Your task to perform on an android device: find photos in the google photos app Image 0: 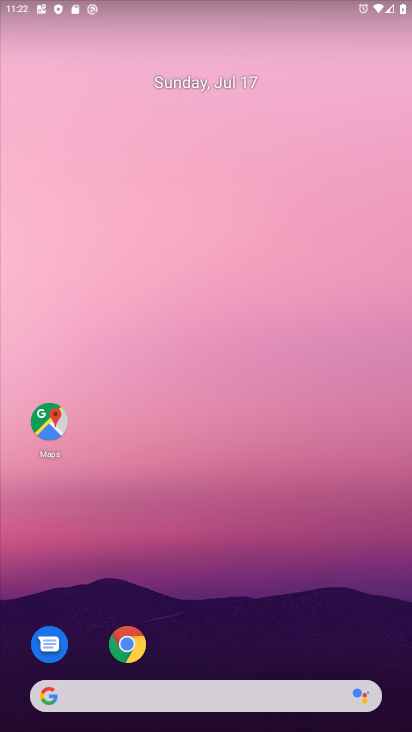
Step 0: drag from (322, 589) to (295, 115)
Your task to perform on an android device: find photos in the google photos app Image 1: 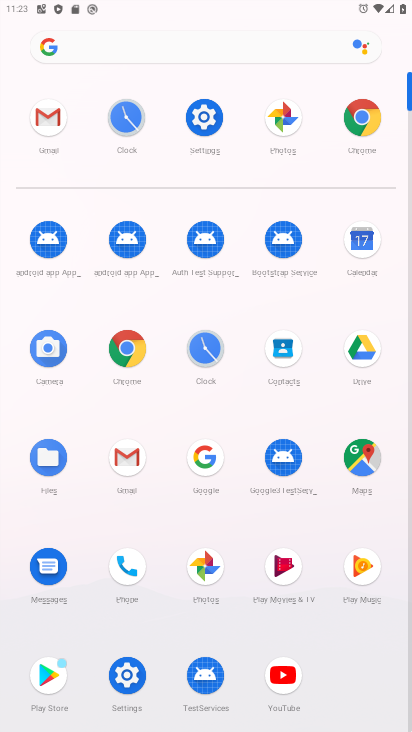
Step 1: click (212, 566)
Your task to perform on an android device: find photos in the google photos app Image 2: 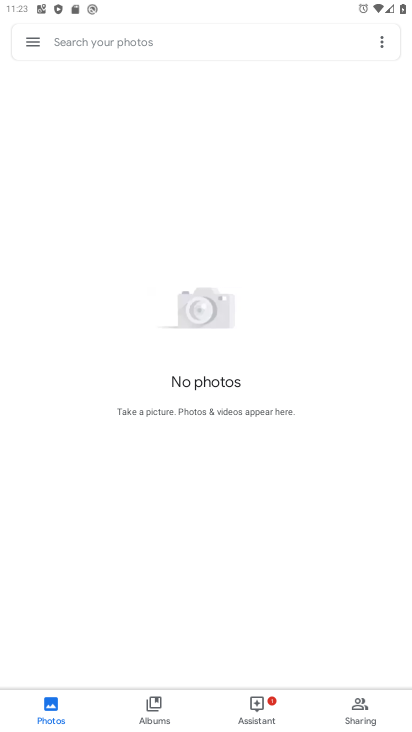
Step 2: task complete